Your task to perform on an android device: empty trash in google photos Image 0: 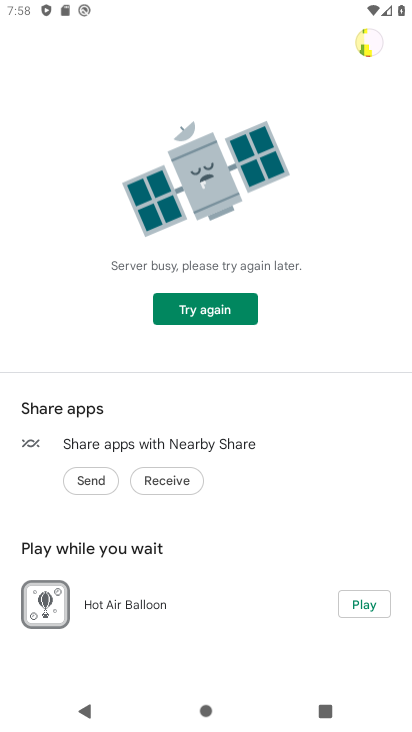
Step 0: press home button
Your task to perform on an android device: empty trash in google photos Image 1: 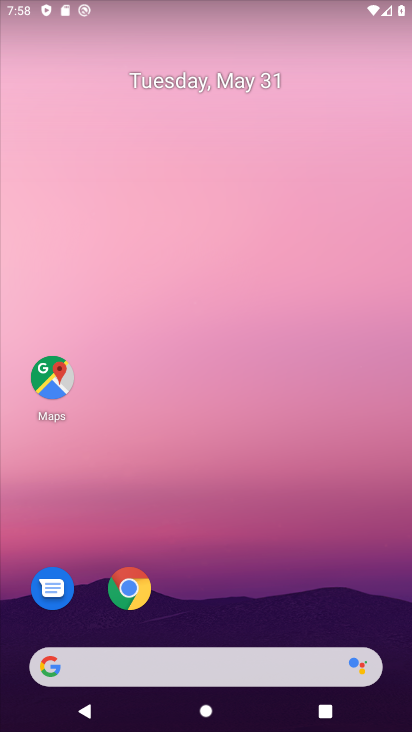
Step 1: drag from (244, 588) to (268, 241)
Your task to perform on an android device: empty trash in google photos Image 2: 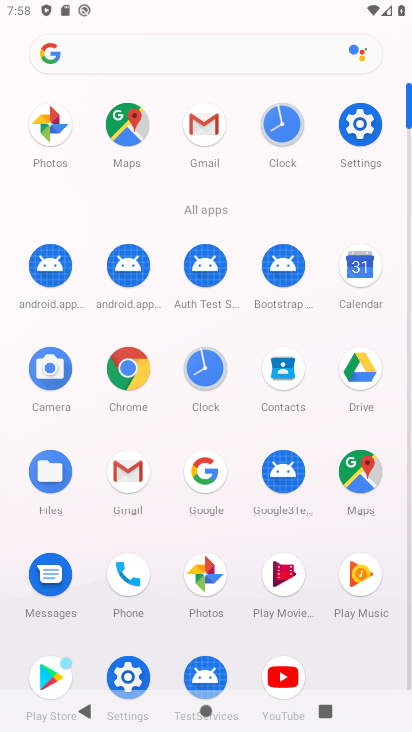
Step 2: drag from (47, 138) to (126, 315)
Your task to perform on an android device: empty trash in google photos Image 3: 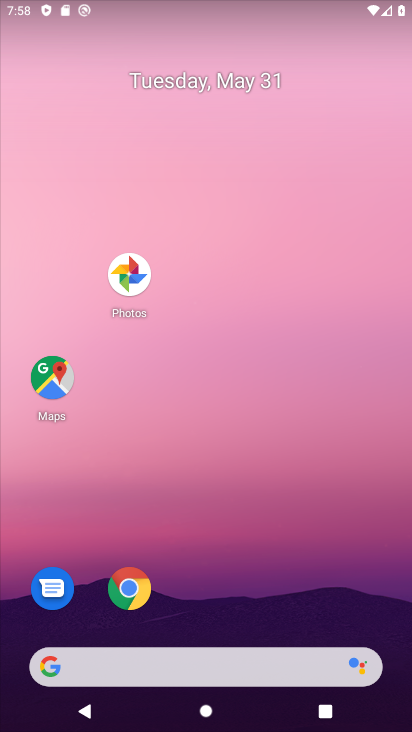
Step 3: click (125, 274)
Your task to perform on an android device: empty trash in google photos Image 4: 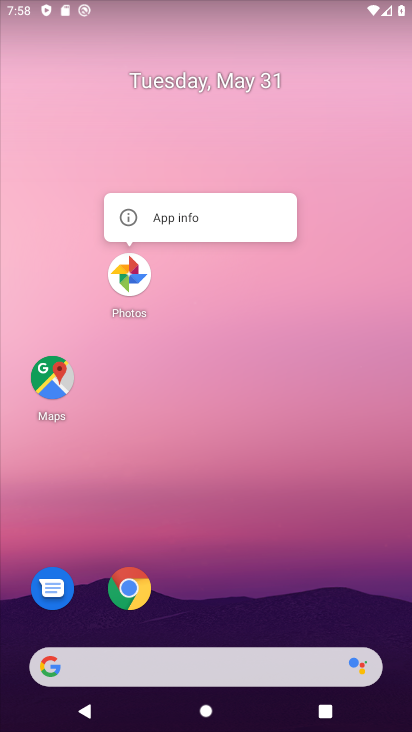
Step 4: click (125, 274)
Your task to perform on an android device: empty trash in google photos Image 5: 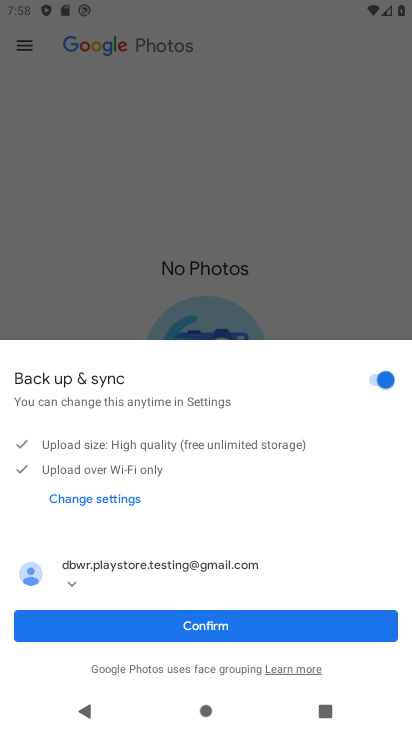
Step 5: click (219, 623)
Your task to perform on an android device: empty trash in google photos Image 6: 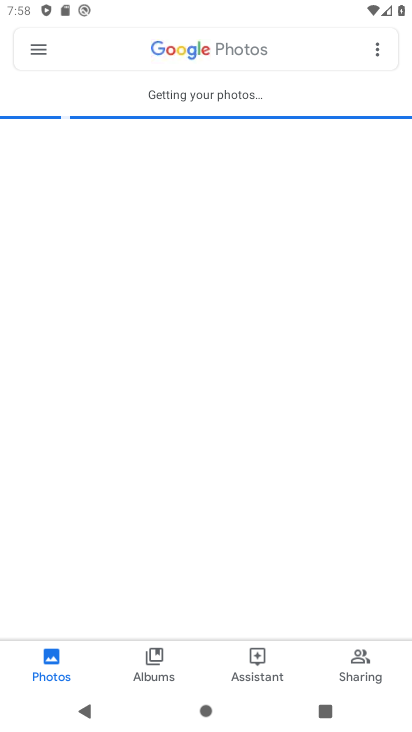
Step 6: click (30, 46)
Your task to perform on an android device: empty trash in google photos Image 7: 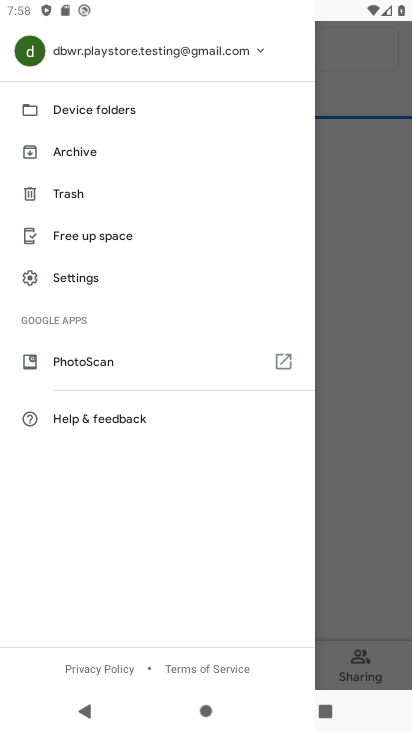
Step 7: click (139, 203)
Your task to perform on an android device: empty trash in google photos Image 8: 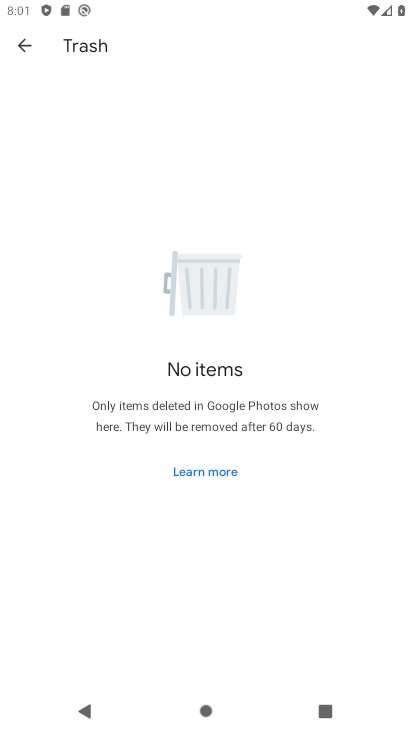
Step 8: task complete